Your task to perform on an android device: turn off location history Image 0: 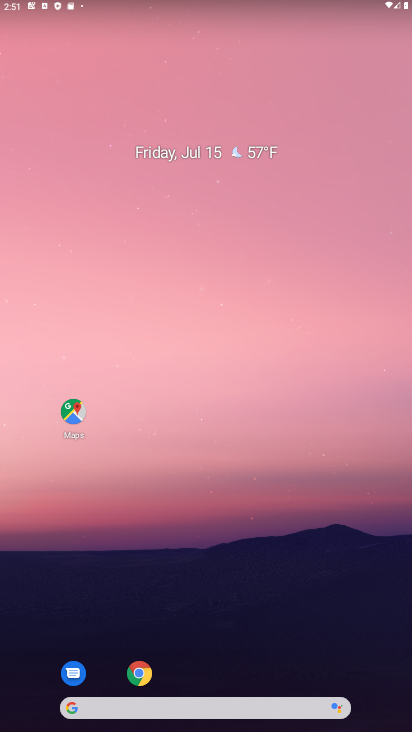
Step 0: click (74, 416)
Your task to perform on an android device: turn off location history Image 1: 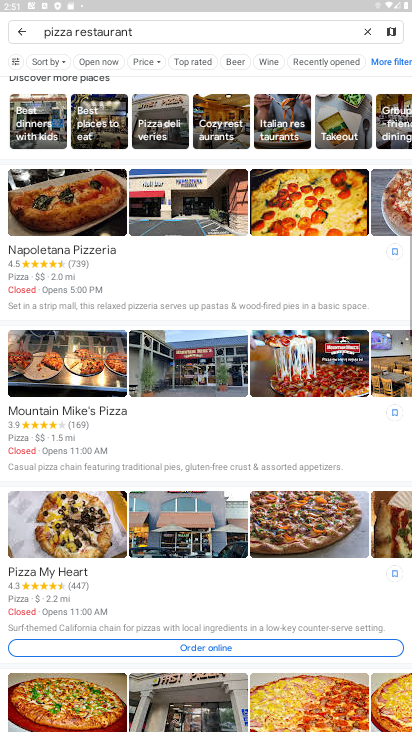
Step 1: click (365, 34)
Your task to perform on an android device: turn off location history Image 2: 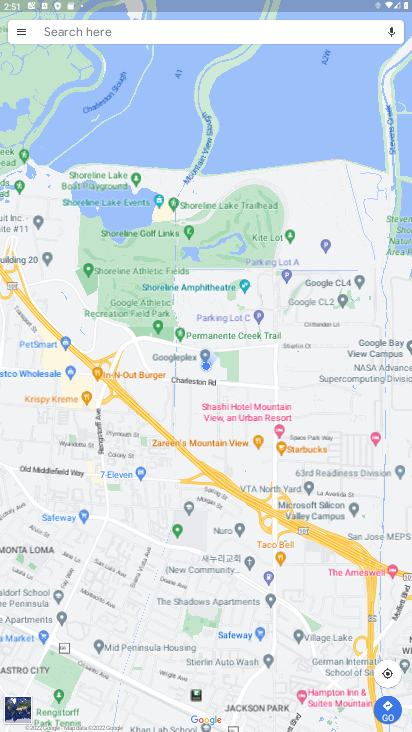
Step 2: click (15, 33)
Your task to perform on an android device: turn off location history Image 3: 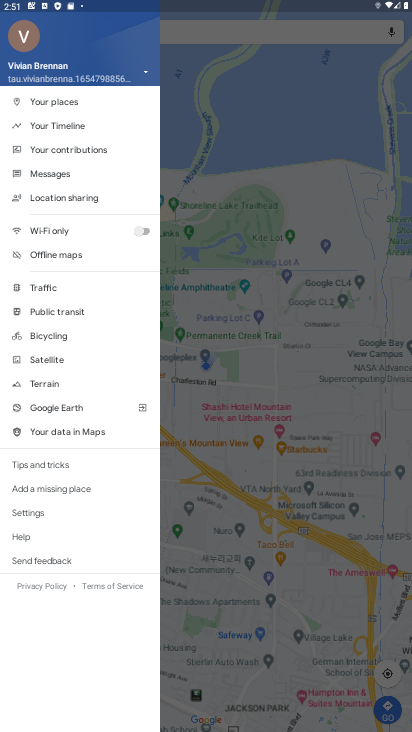
Step 3: click (30, 513)
Your task to perform on an android device: turn off location history Image 4: 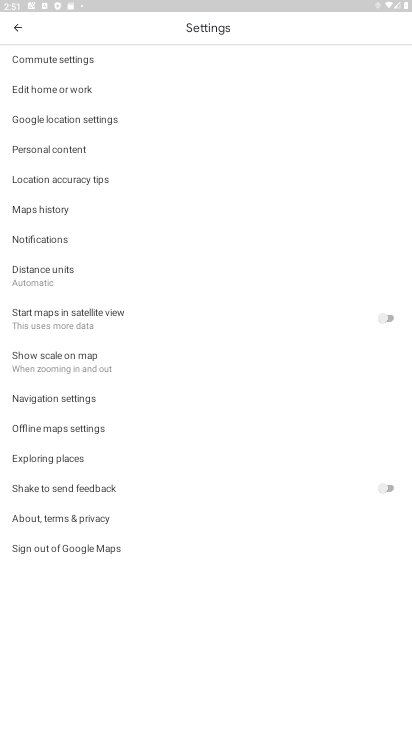
Step 4: click (54, 149)
Your task to perform on an android device: turn off location history Image 5: 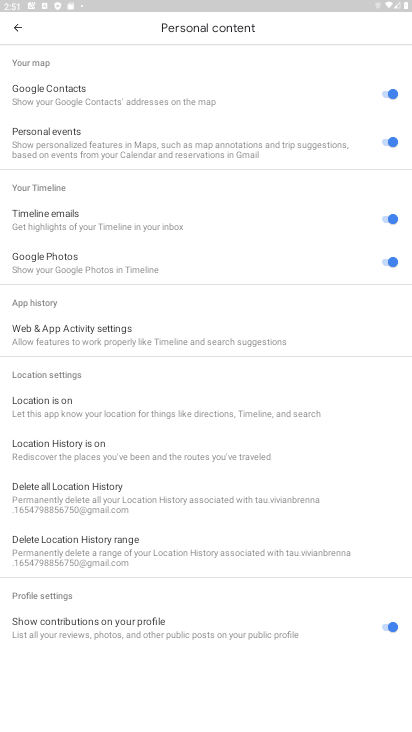
Step 5: click (58, 449)
Your task to perform on an android device: turn off location history Image 6: 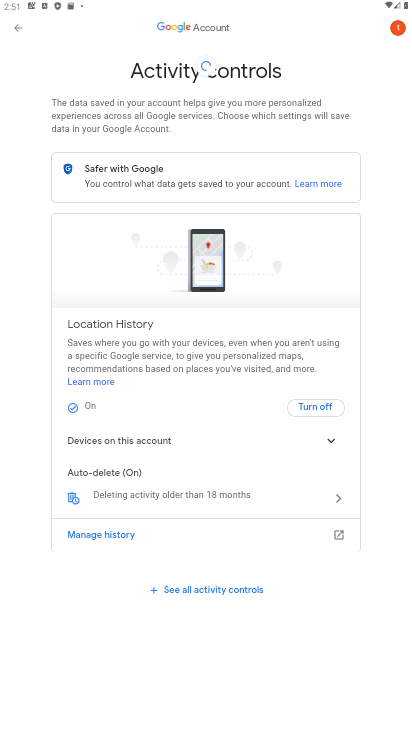
Step 6: click (316, 405)
Your task to perform on an android device: turn off location history Image 7: 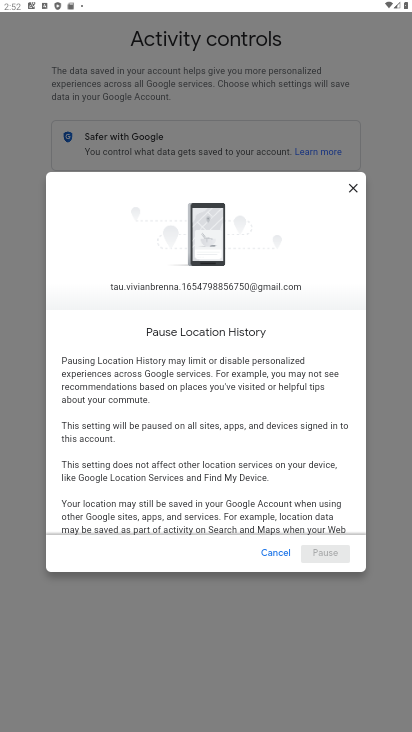
Step 7: drag from (317, 503) to (275, 170)
Your task to perform on an android device: turn off location history Image 8: 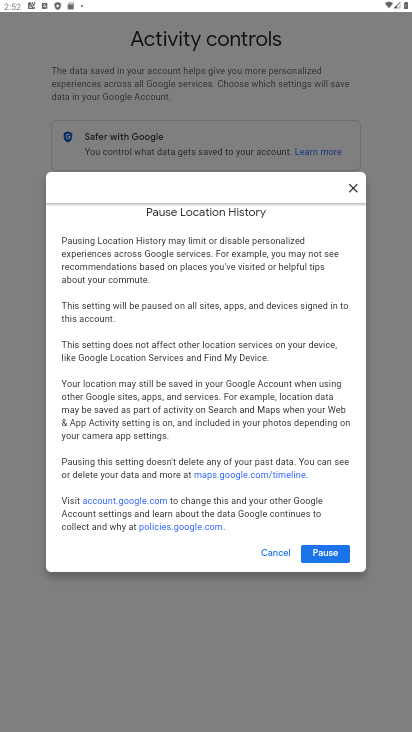
Step 8: click (326, 552)
Your task to perform on an android device: turn off location history Image 9: 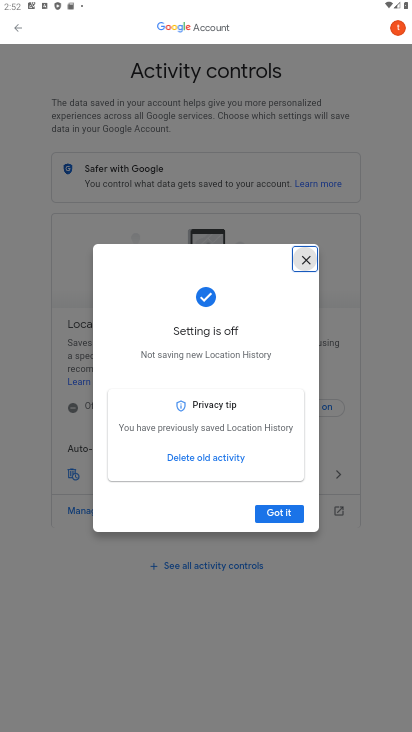
Step 9: click (285, 517)
Your task to perform on an android device: turn off location history Image 10: 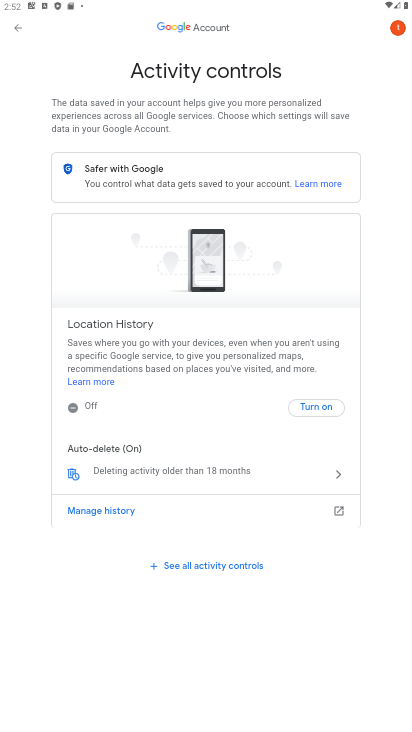
Step 10: task complete